Your task to perform on an android device: What's on my calendar today? Image 0: 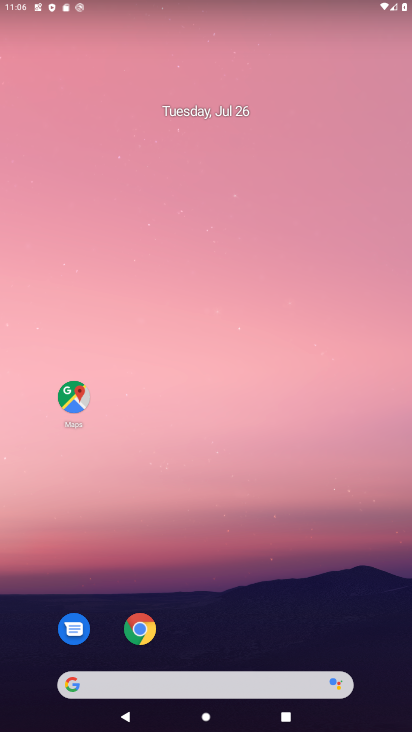
Step 0: drag from (273, 634) to (274, 46)
Your task to perform on an android device: What's on my calendar today? Image 1: 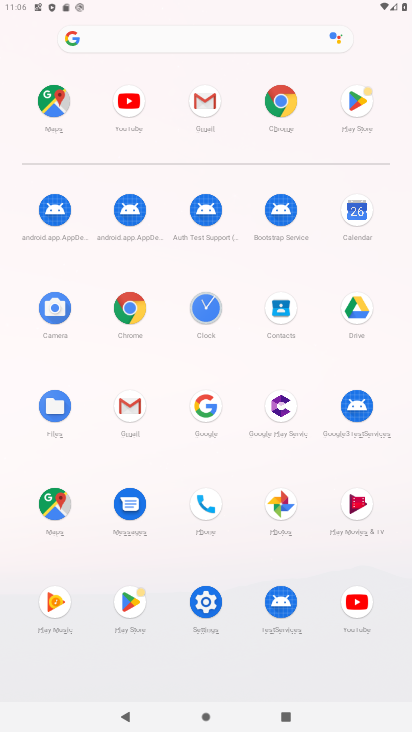
Step 1: click (354, 230)
Your task to perform on an android device: What's on my calendar today? Image 2: 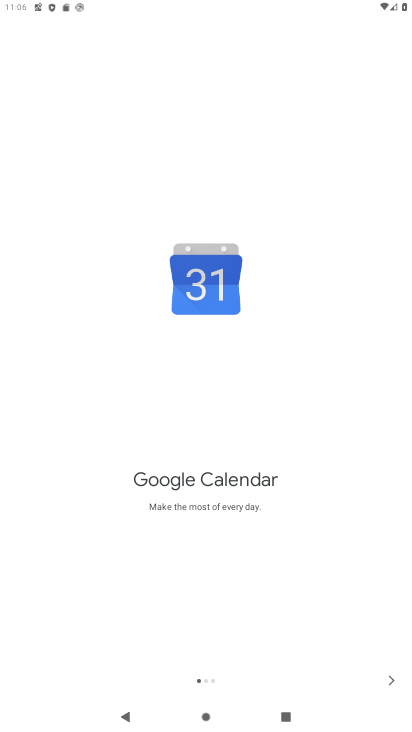
Step 2: click (387, 687)
Your task to perform on an android device: What's on my calendar today? Image 3: 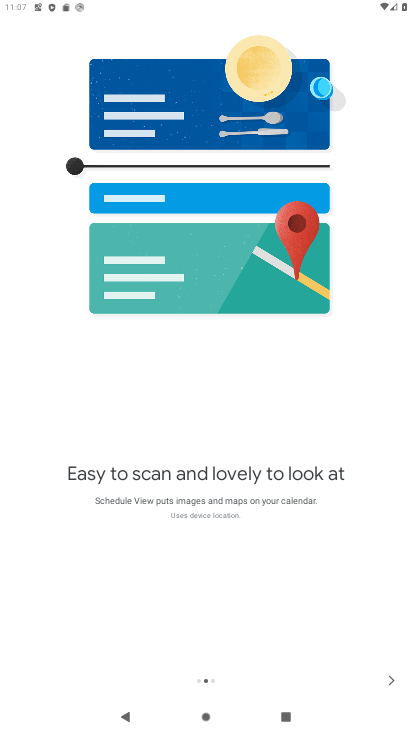
Step 3: click (397, 677)
Your task to perform on an android device: What's on my calendar today? Image 4: 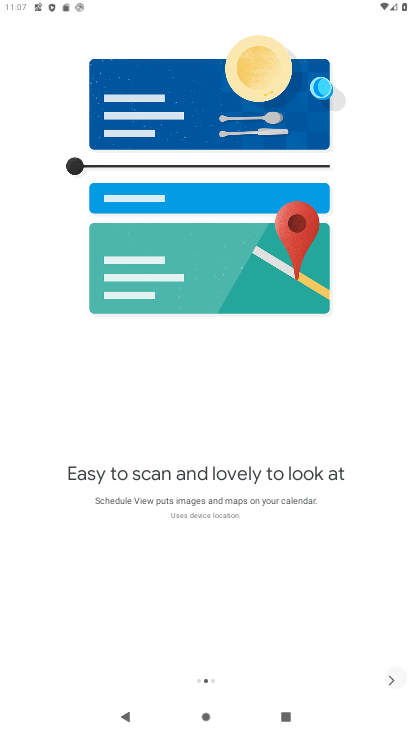
Step 4: click (397, 677)
Your task to perform on an android device: What's on my calendar today? Image 5: 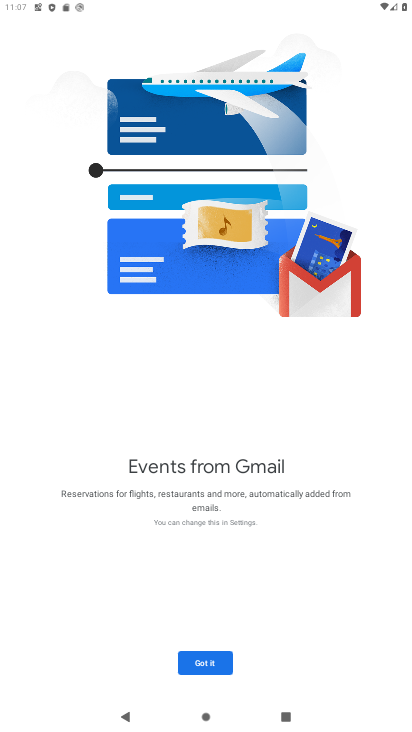
Step 5: click (220, 668)
Your task to perform on an android device: What's on my calendar today? Image 6: 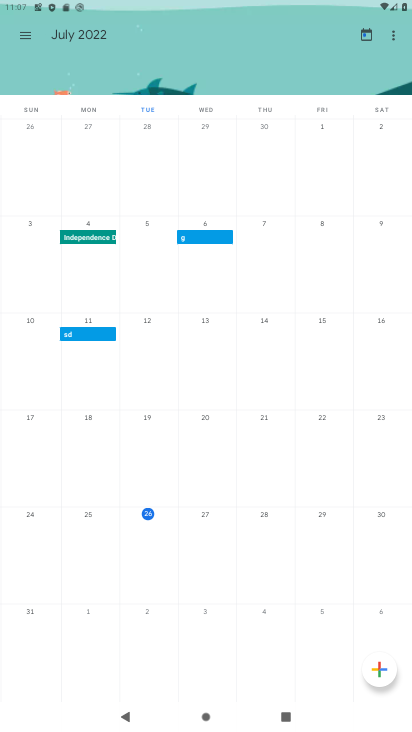
Step 6: task complete